Your task to perform on an android device: allow notifications from all sites in the chrome app Image 0: 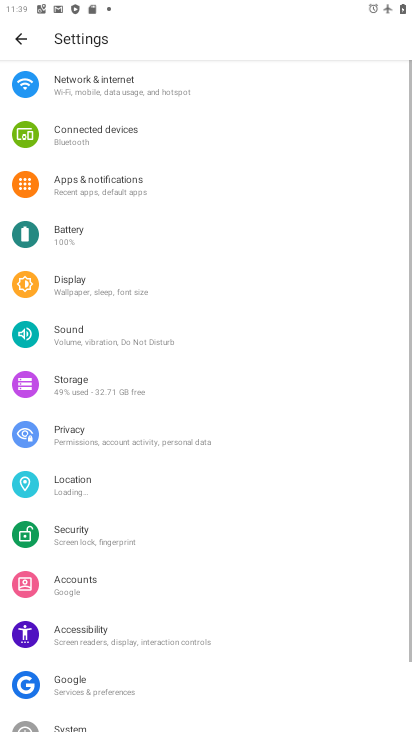
Step 0: press home button
Your task to perform on an android device: allow notifications from all sites in the chrome app Image 1: 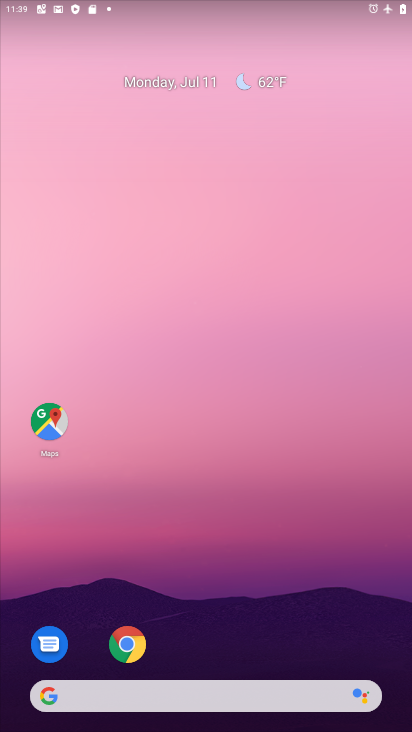
Step 1: click (129, 642)
Your task to perform on an android device: allow notifications from all sites in the chrome app Image 2: 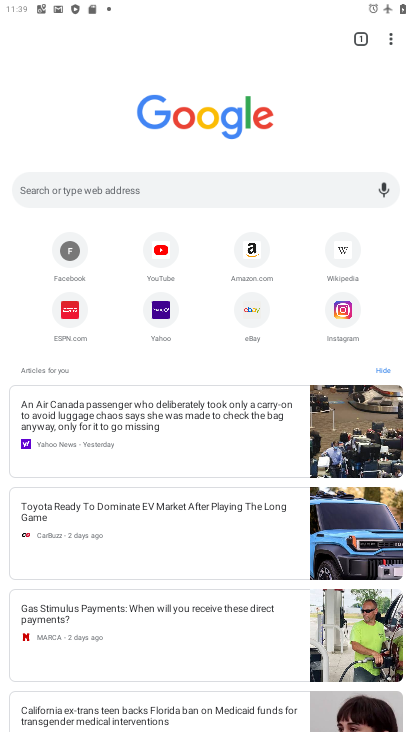
Step 2: click (386, 37)
Your task to perform on an android device: allow notifications from all sites in the chrome app Image 3: 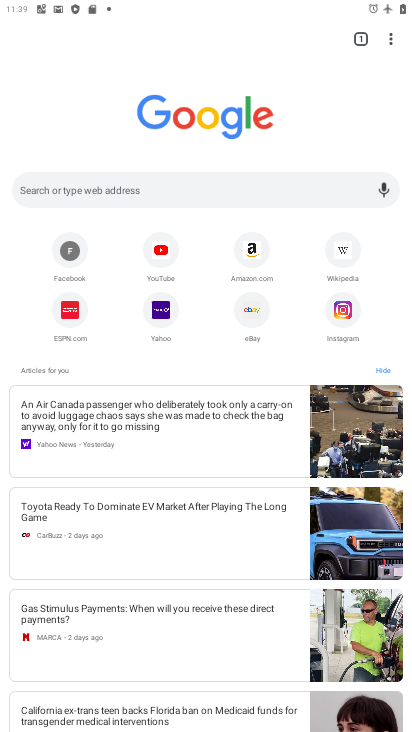
Step 3: drag from (385, 37) to (251, 367)
Your task to perform on an android device: allow notifications from all sites in the chrome app Image 4: 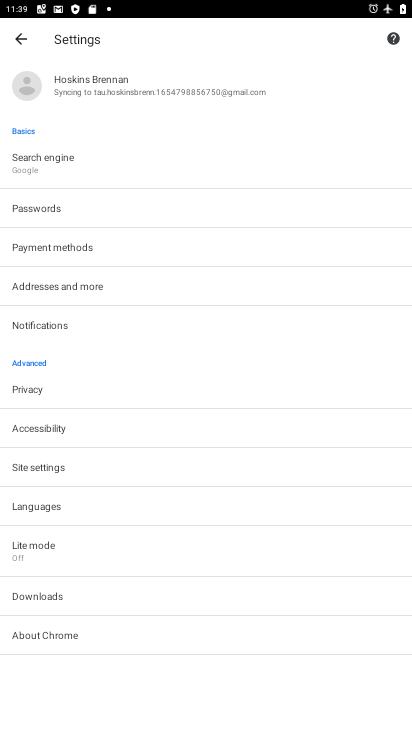
Step 4: click (36, 324)
Your task to perform on an android device: allow notifications from all sites in the chrome app Image 5: 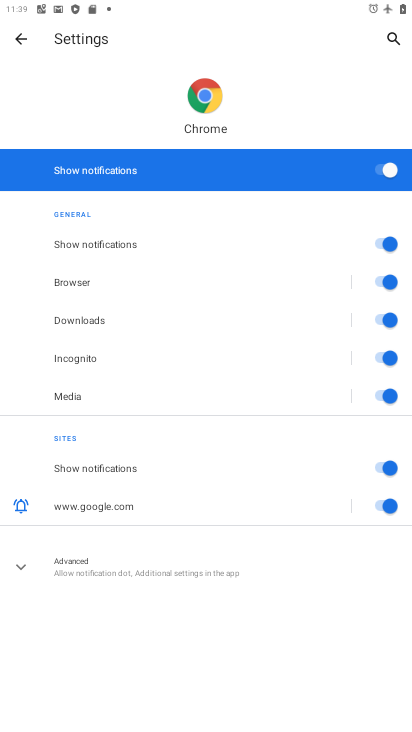
Step 5: click (22, 38)
Your task to perform on an android device: allow notifications from all sites in the chrome app Image 6: 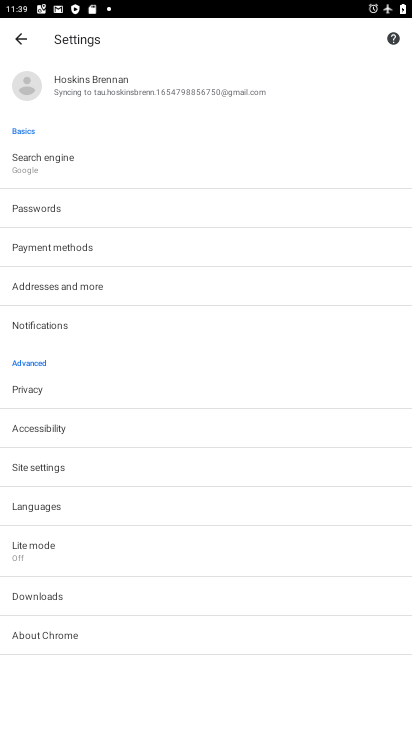
Step 6: click (25, 462)
Your task to perform on an android device: allow notifications from all sites in the chrome app Image 7: 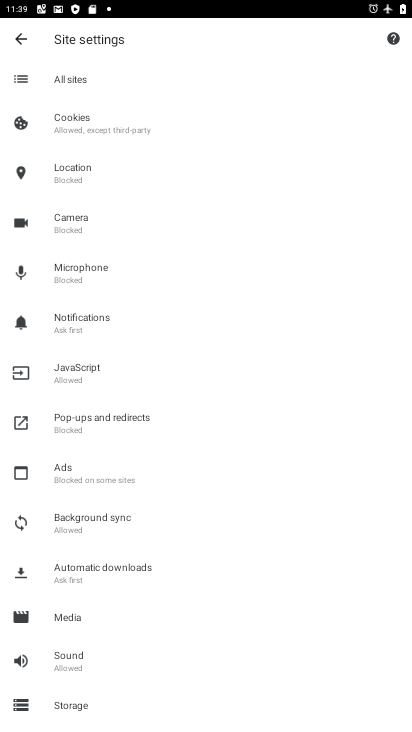
Step 7: click (55, 325)
Your task to perform on an android device: allow notifications from all sites in the chrome app Image 8: 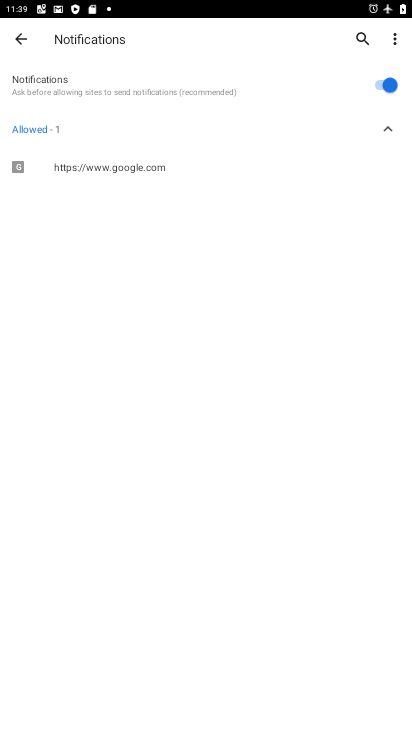
Step 8: click (369, 90)
Your task to perform on an android device: allow notifications from all sites in the chrome app Image 9: 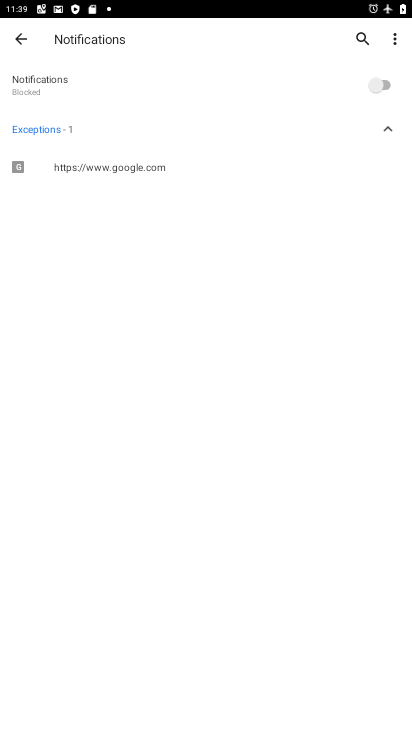
Step 9: task complete